Your task to perform on an android device: Go to Google maps Image 0: 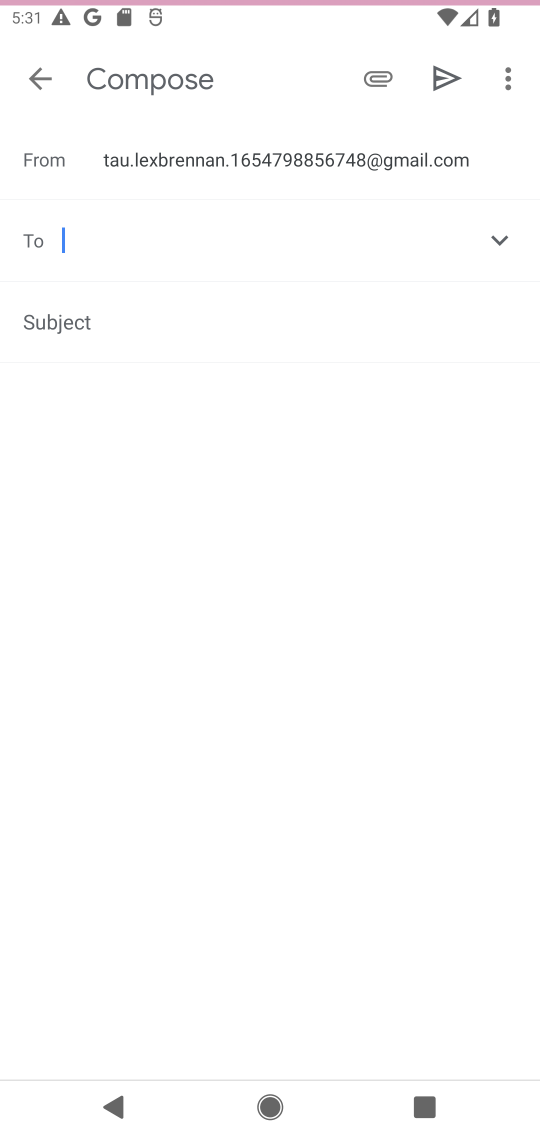
Step 0: type "What's the weather?"
Your task to perform on an android device: Go to Google maps Image 1: 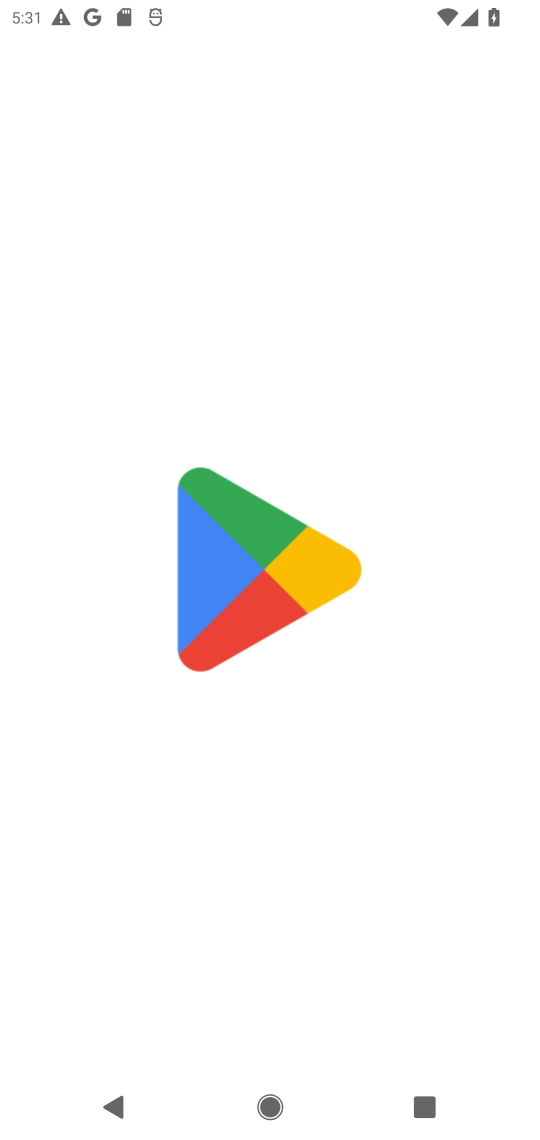
Step 1: press enter
Your task to perform on an android device: Go to Google maps Image 2: 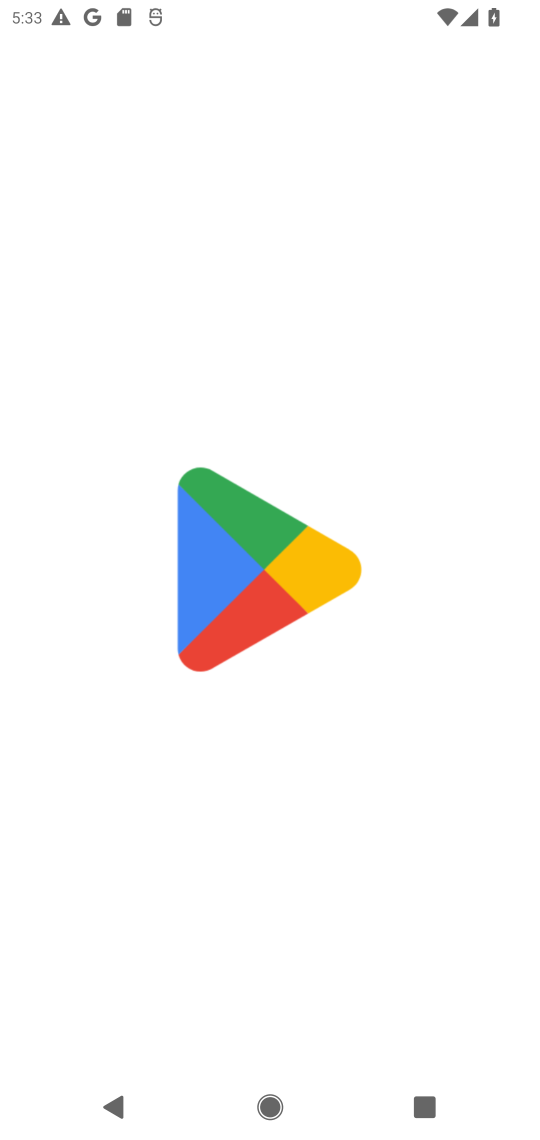
Step 2: task complete